Your task to perform on an android device: Go to notification settings Image 0: 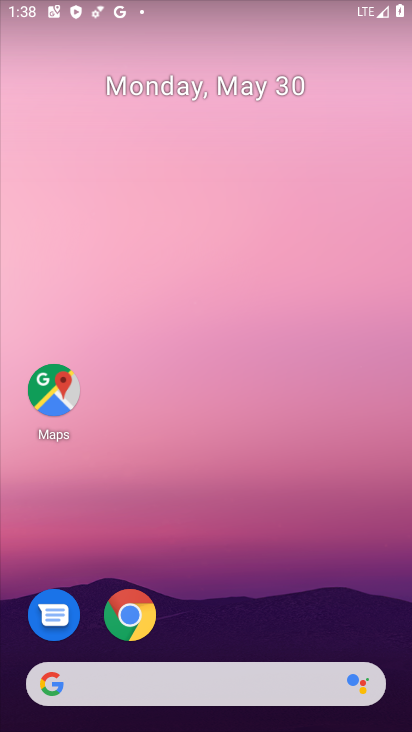
Step 0: drag from (317, 635) to (261, 85)
Your task to perform on an android device: Go to notification settings Image 1: 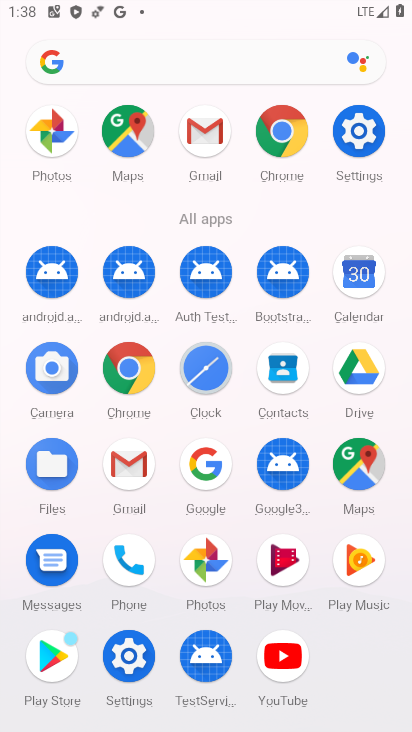
Step 1: click (346, 123)
Your task to perform on an android device: Go to notification settings Image 2: 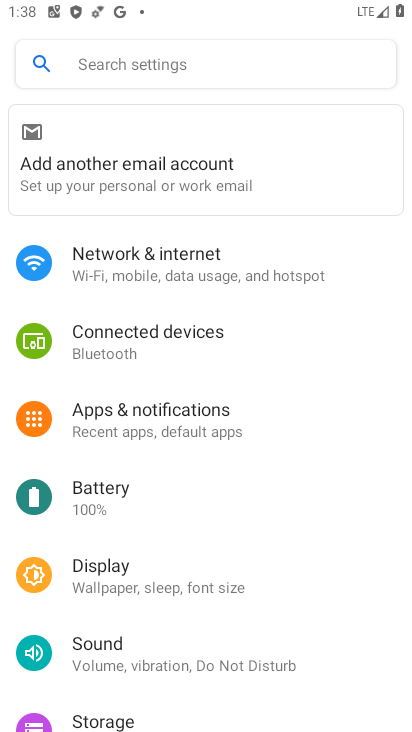
Step 2: click (144, 407)
Your task to perform on an android device: Go to notification settings Image 3: 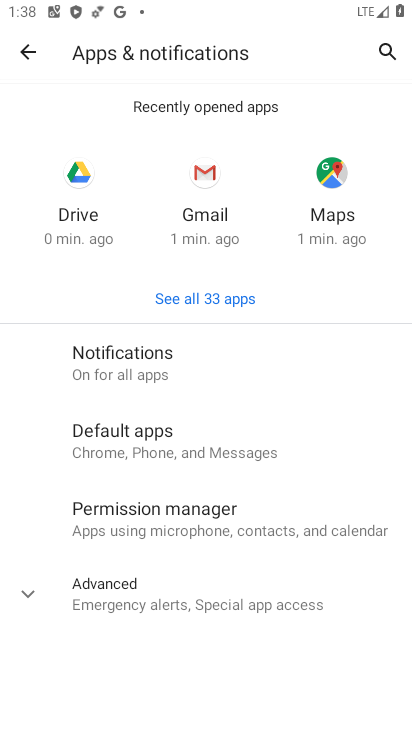
Step 3: click (135, 361)
Your task to perform on an android device: Go to notification settings Image 4: 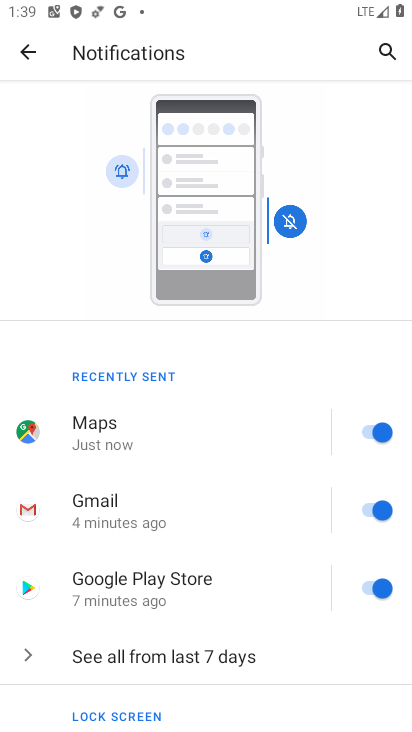
Step 4: task complete